Your task to perform on an android device: Is it going to rain this weekend? Image 0: 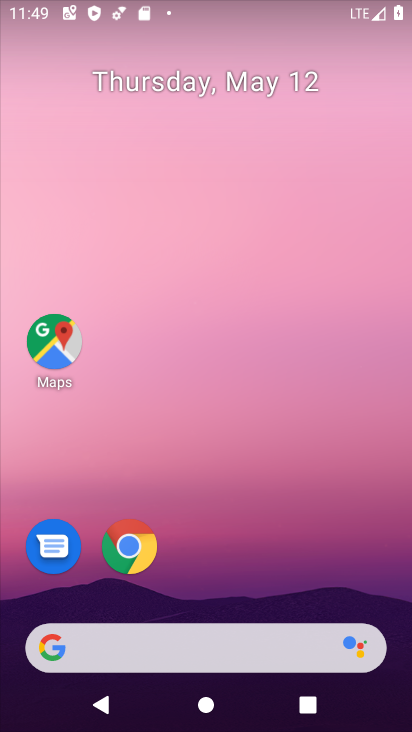
Step 0: drag from (196, 566) to (174, 69)
Your task to perform on an android device: Is it going to rain this weekend? Image 1: 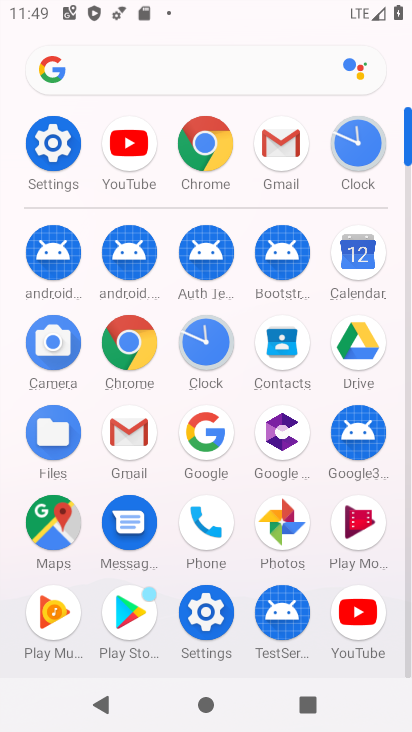
Step 1: click (204, 438)
Your task to perform on an android device: Is it going to rain this weekend? Image 2: 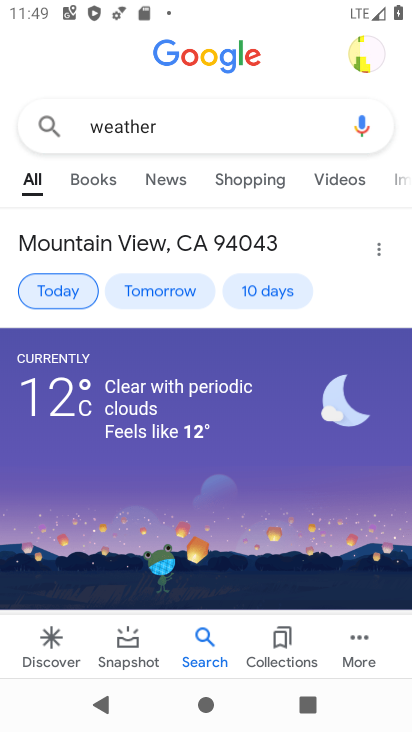
Step 2: task complete